Your task to perform on an android device: Open the Play Movies app and select the watchlist tab. Image 0: 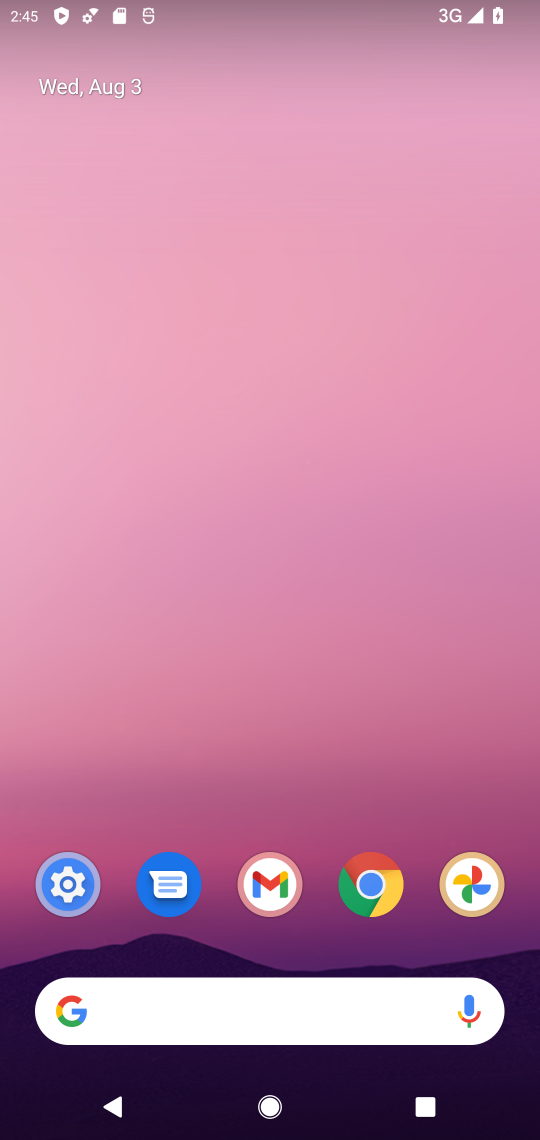
Step 0: drag from (318, 945) to (314, 180)
Your task to perform on an android device: Open the Play Movies app and select the watchlist tab. Image 1: 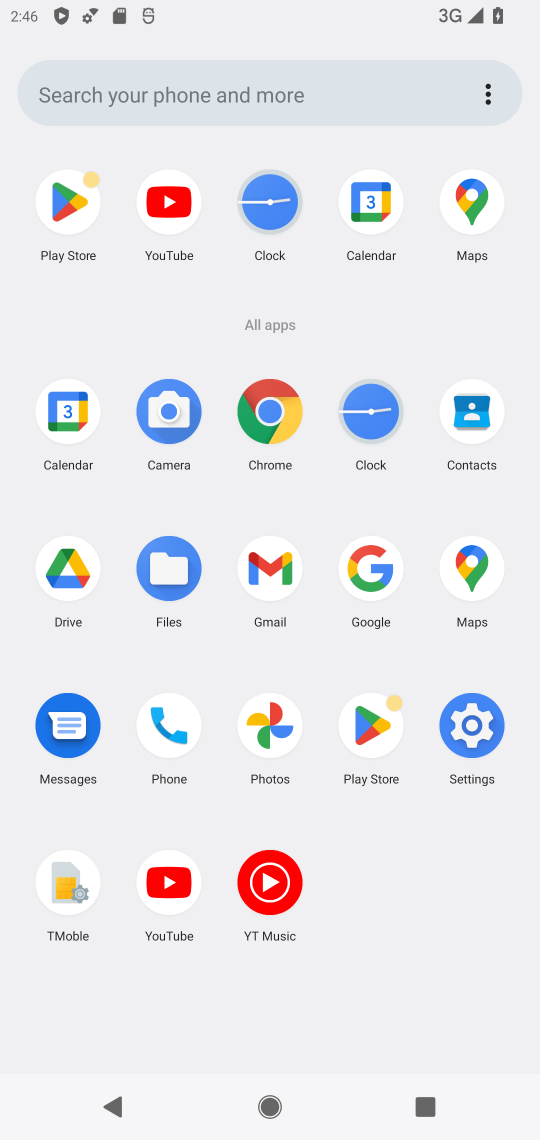
Step 1: task complete